Your task to perform on an android device: turn on sleep mode Image 0: 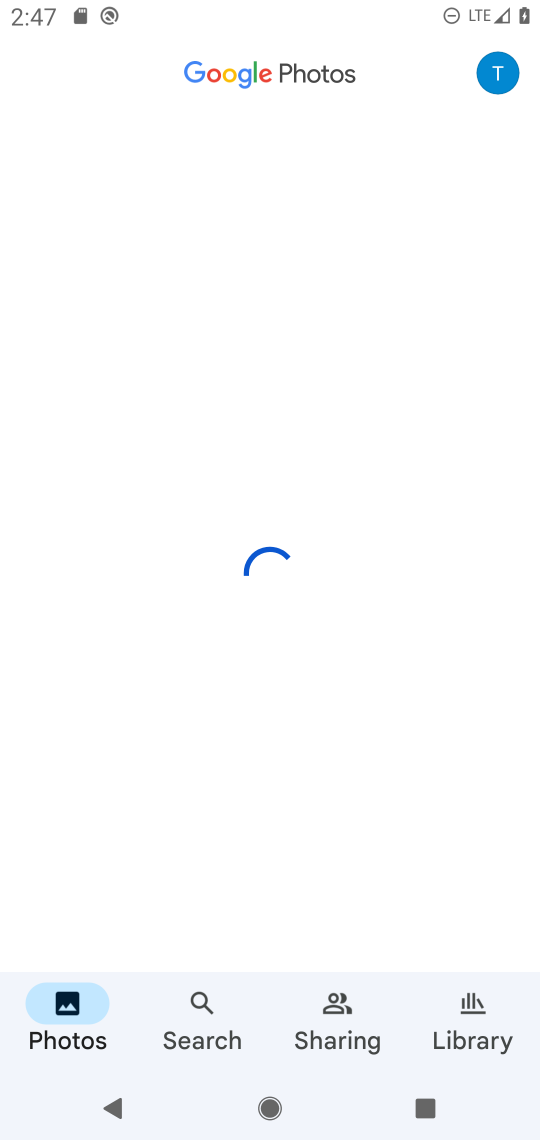
Step 0: press home button
Your task to perform on an android device: turn on sleep mode Image 1: 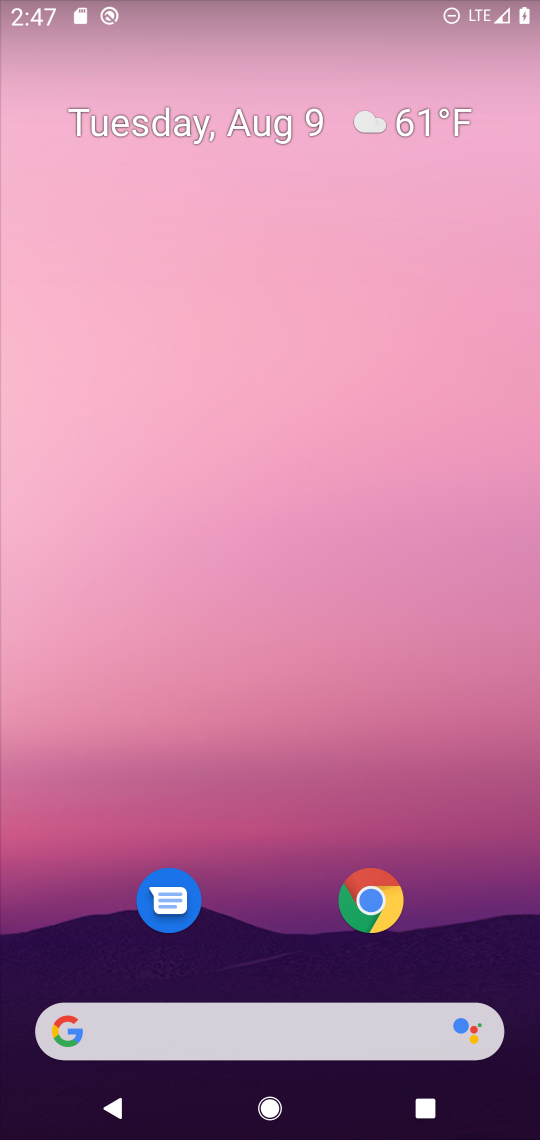
Step 1: drag from (458, 955) to (460, 285)
Your task to perform on an android device: turn on sleep mode Image 2: 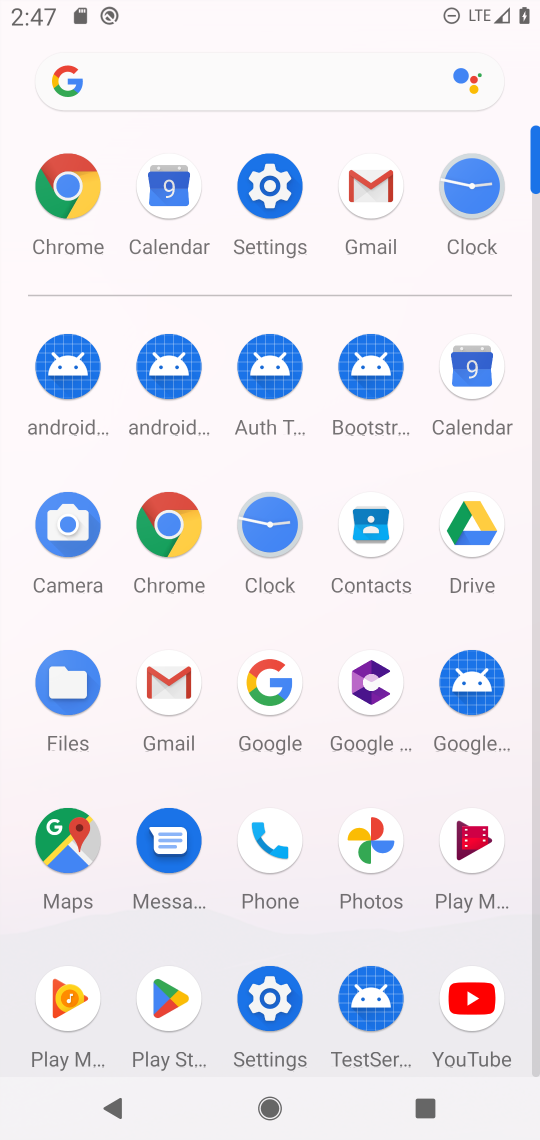
Step 2: click (274, 185)
Your task to perform on an android device: turn on sleep mode Image 3: 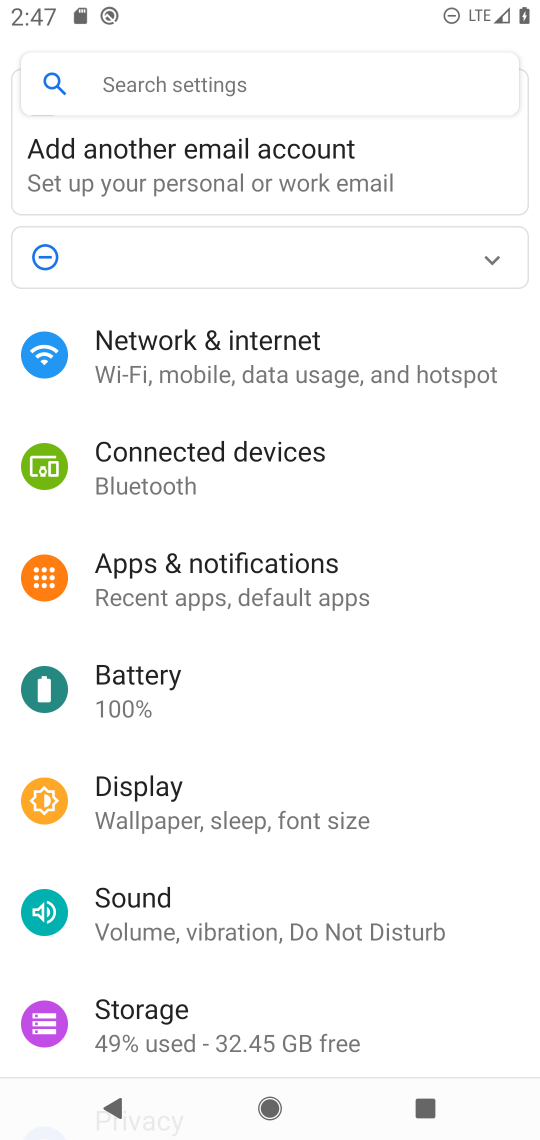
Step 3: drag from (453, 703) to (451, 425)
Your task to perform on an android device: turn on sleep mode Image 4: 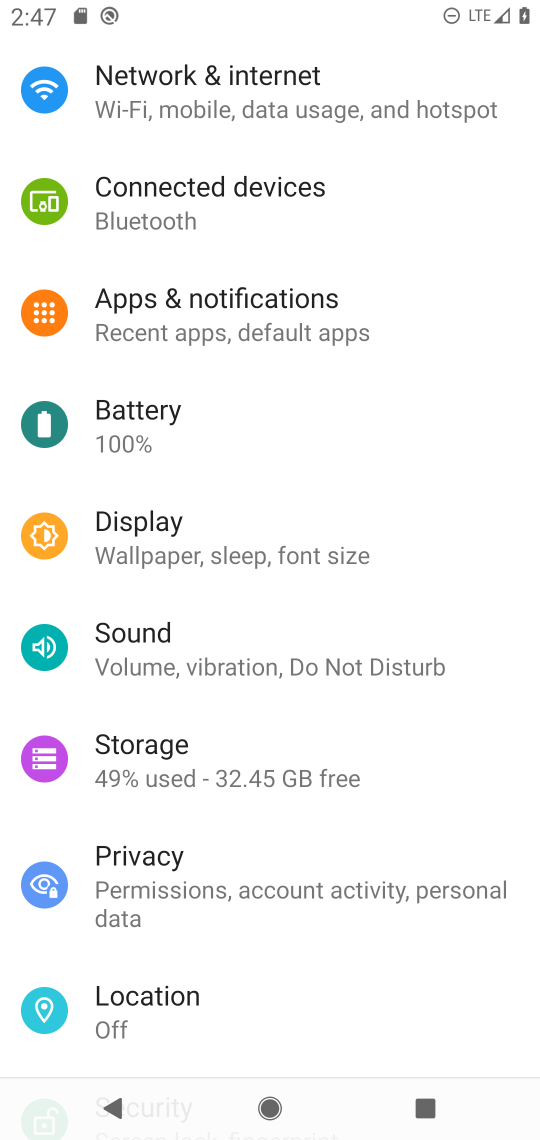
Step 4: drag from (420, 767) to (440, 403)
Your task to perform on an android device: turn on sleep mode Image 5: 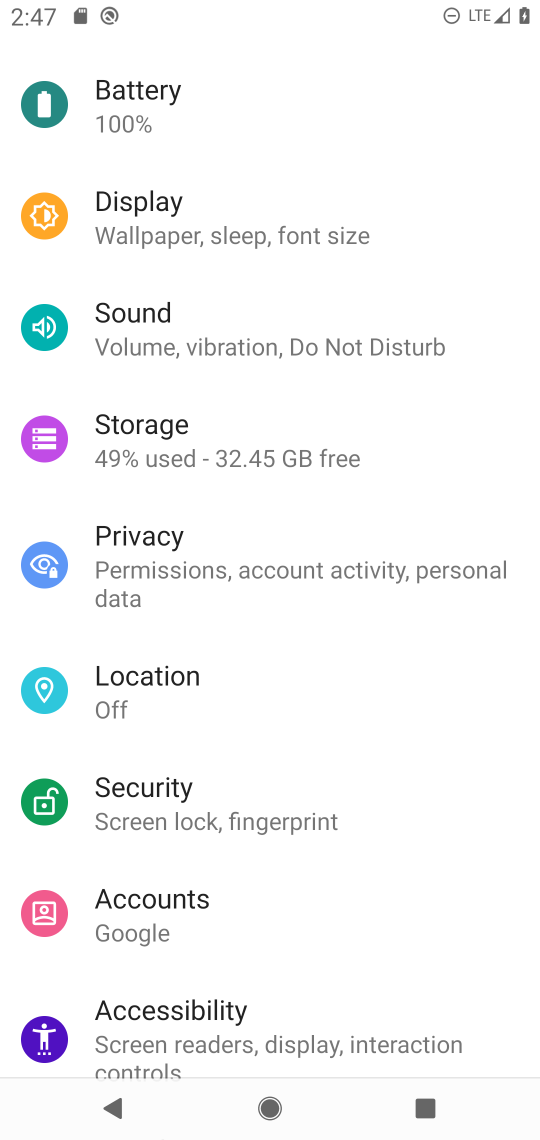
Step 5: drag from (440, 770) to (444, 539)
Your task to perform on an android device: turn on sleep mode Image 6: 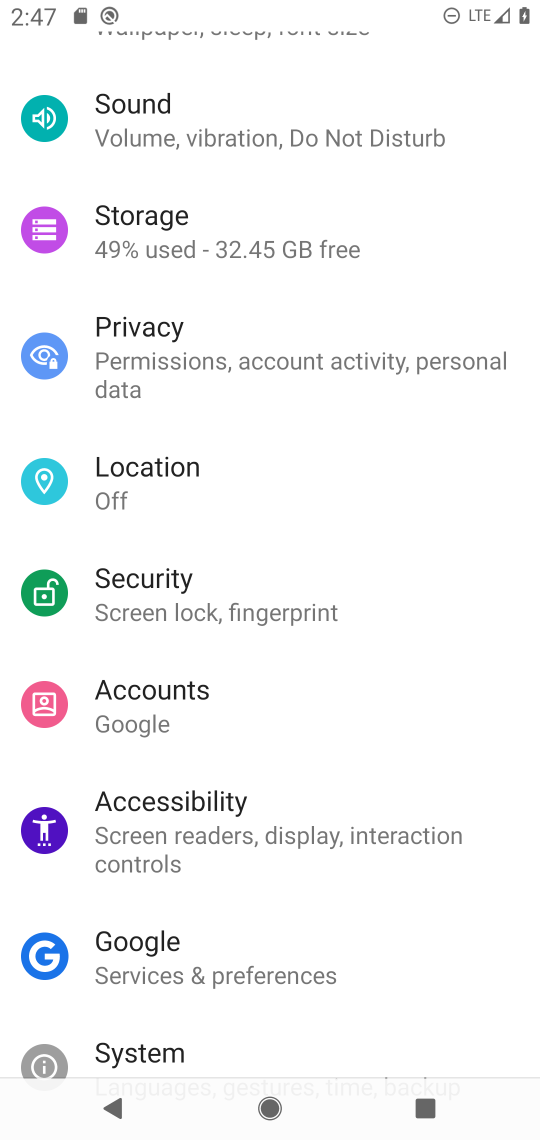
Step 6: drag from (425, 798) to (420, 516)
Your task to perform on an android device: turn on sleep mode Image 7: 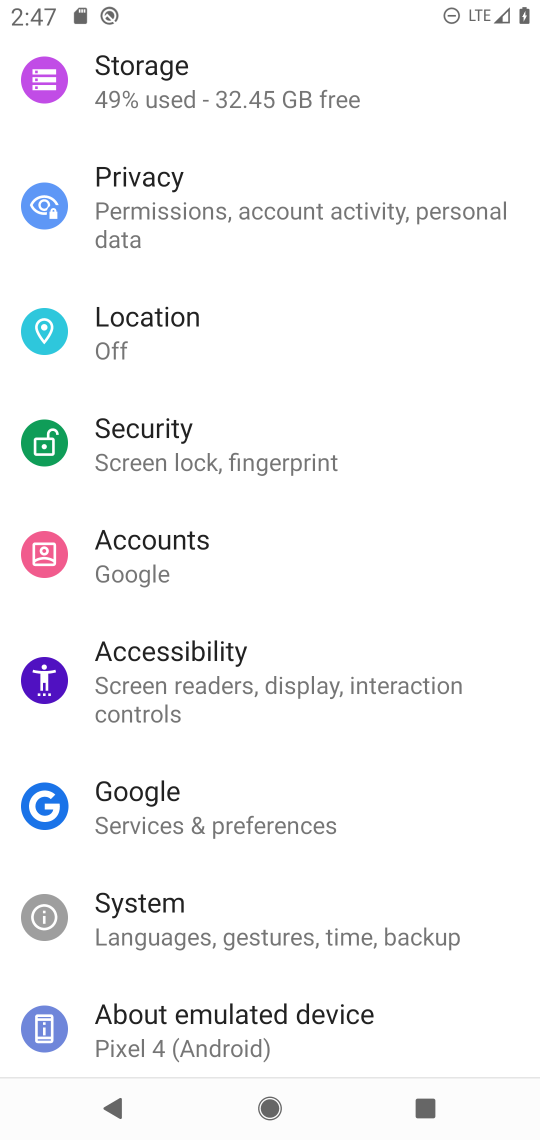
Step 7: drag from (429, 392) to (441, 619)
Your task to perform on an android device: turn on sleep mode Image 8: 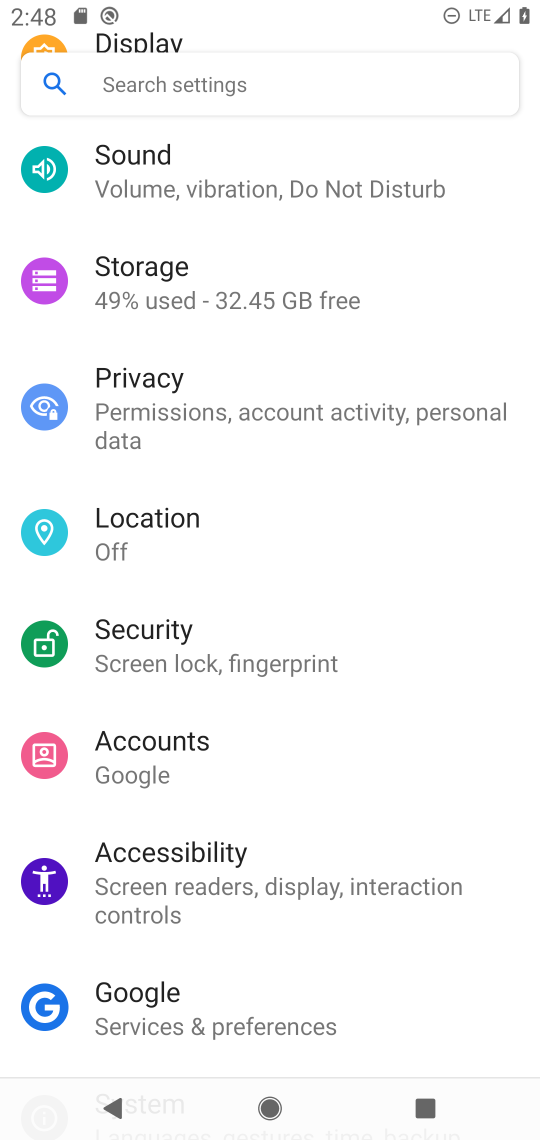
Step 8: drag from (454, 333) to (457, 586)
Your task to perform on an android device: turn on sleep mode Image 9: 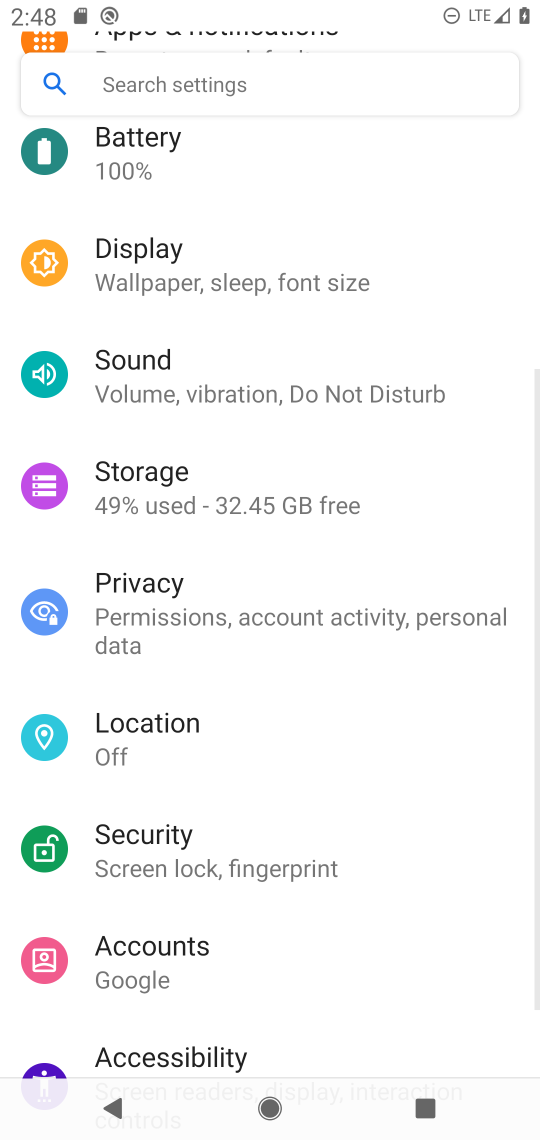
Step 9: drag from (489, 337) to (478, 578)
Your task to perform on an android device: turn on sleep mode Image 10: 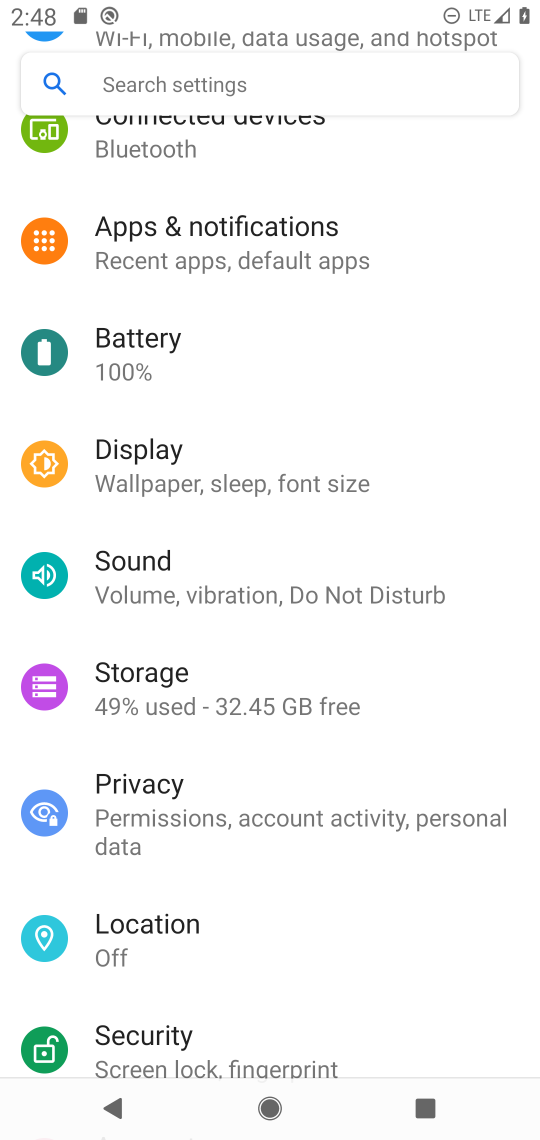
Step 10: drag from (428, 342) to (464, 721)
Your task to perform on an android device: turn on sleep mode Image 11: 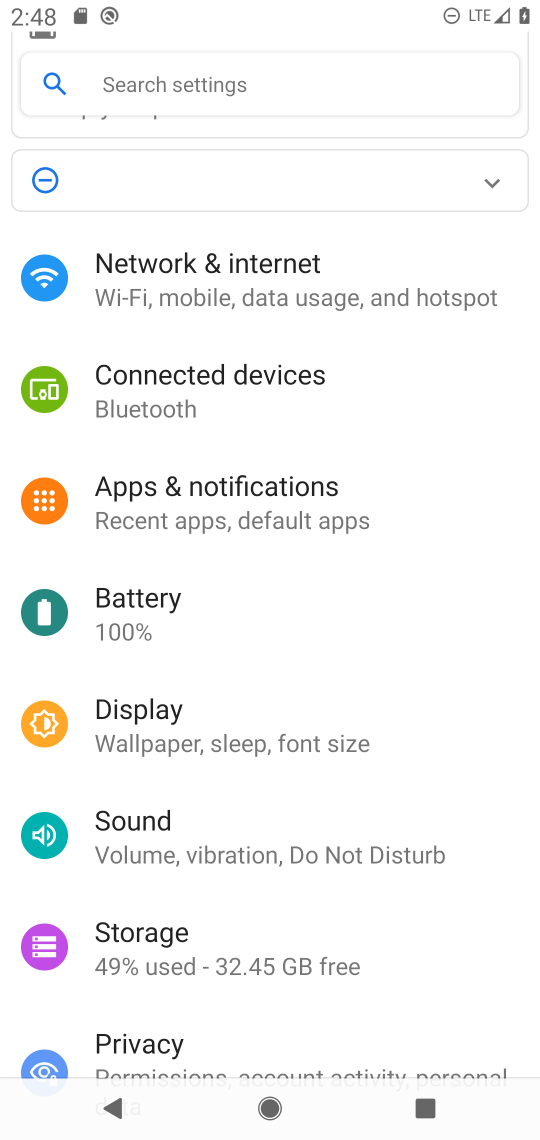
Step 11: click (315, 727)
Your task to perform on an android device: turn on sleep mode Image 12: 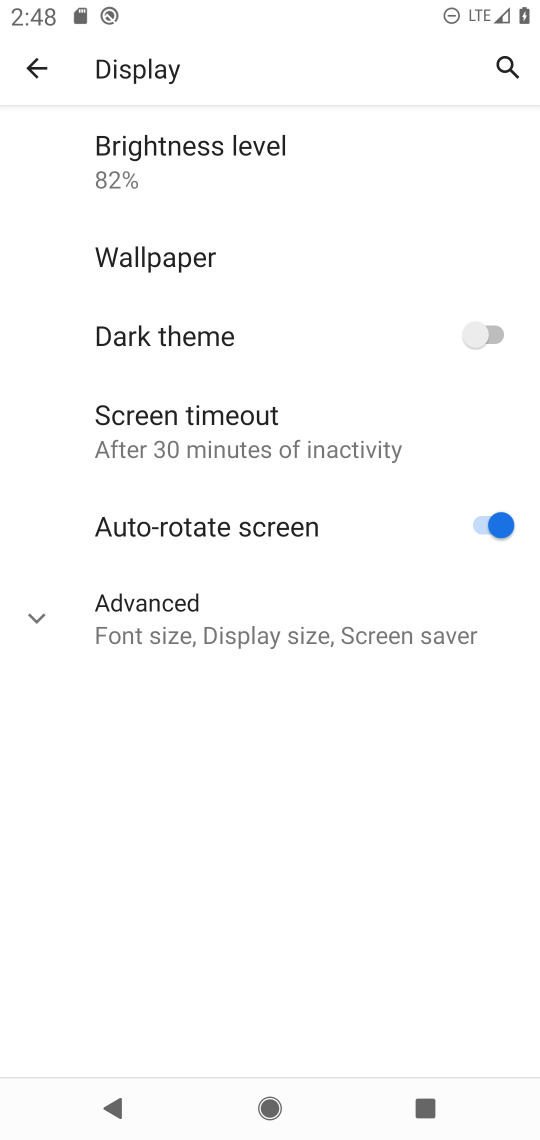
Step 12: click (244, 627)
Your task to perform on an android device: turn on sleep mode Image 13: 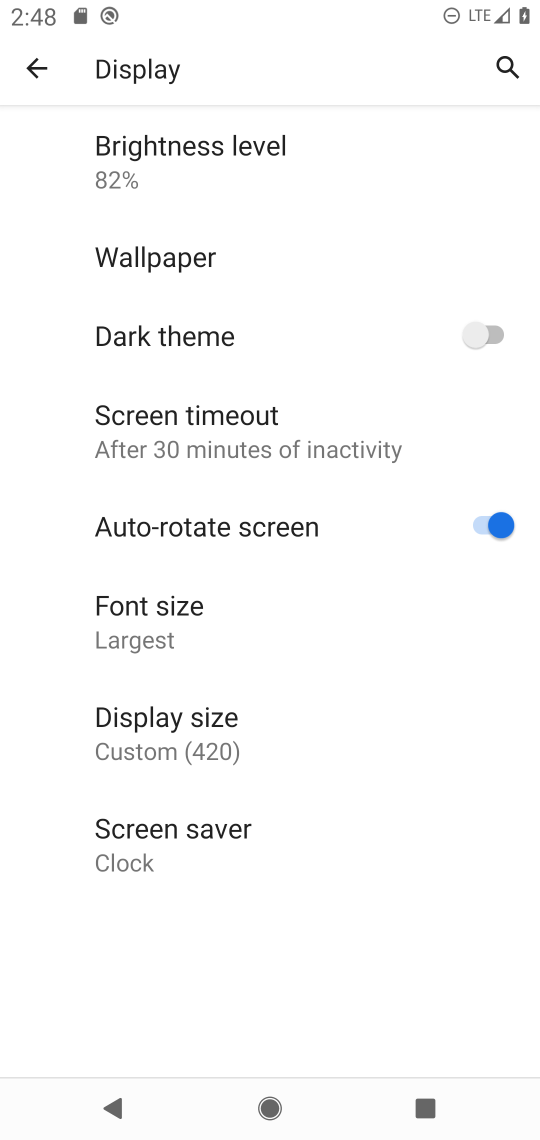
Step 13: task complete